Your task to perform on an android device: Show me productivity apps on the Play Store Image 0: 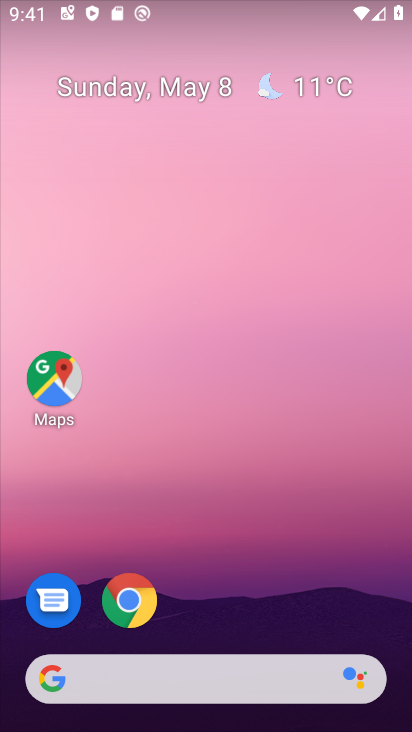
Step 0: drag from (260, 580) to (151, 16)
Your task to perform on an android device: Show me productivity apps on the Play Store Image 1: 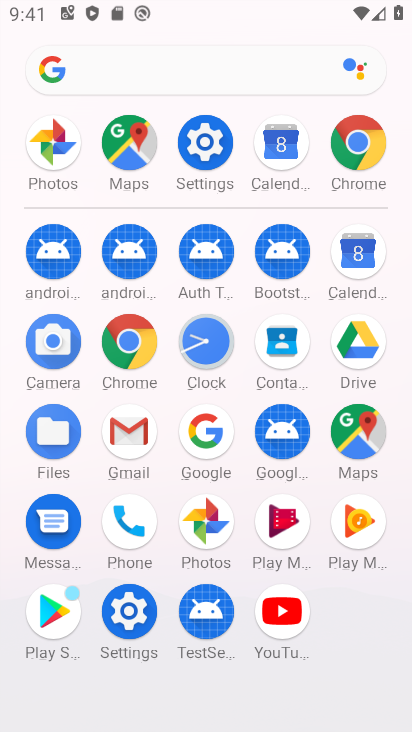
Step 1: click (52, 610)
Your task to perform on an android device: Show me productivity apps on the Play Store Image 2: 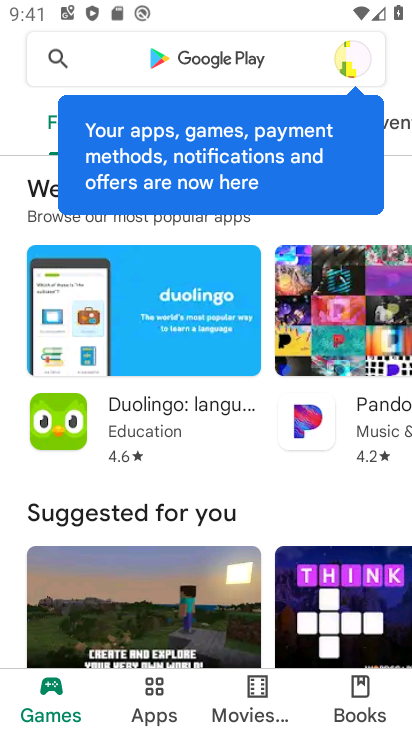
Step 2: click (283, 57)
Your task to perform on an android device: Show me productivity apps on the Play Store Image 3: 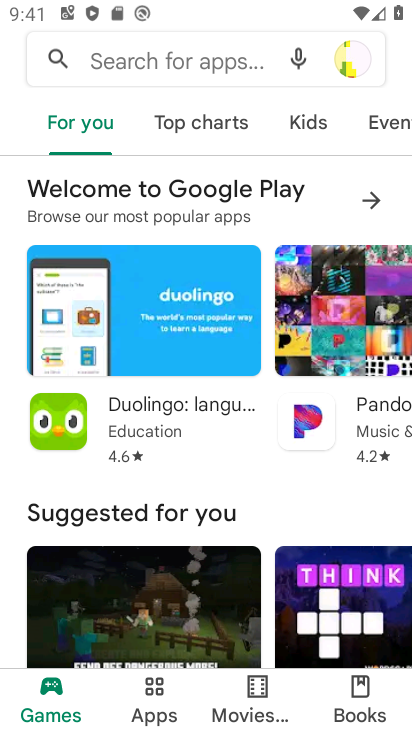
Step 3: click (150, 694)
Your task to perform on an android device: Show me productivity apps on the Play Store Image 4: 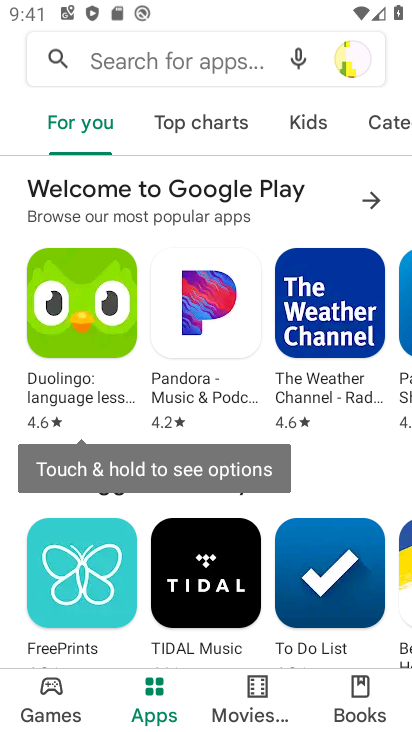
Step 4: click (377, 118)
Your task to perform on an android device: Show me productivity apps on the Play Store Image 5: 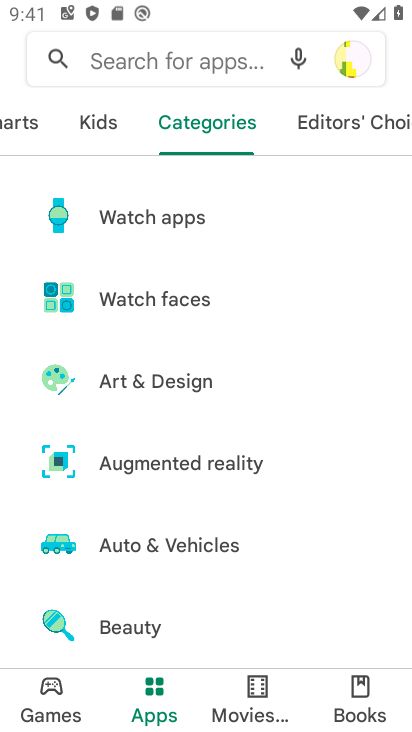
Step 5: drag from (239, 588) to (290, 76)
Your task to perform on an android device: Show me productivity apps on the Play Store Image 6: 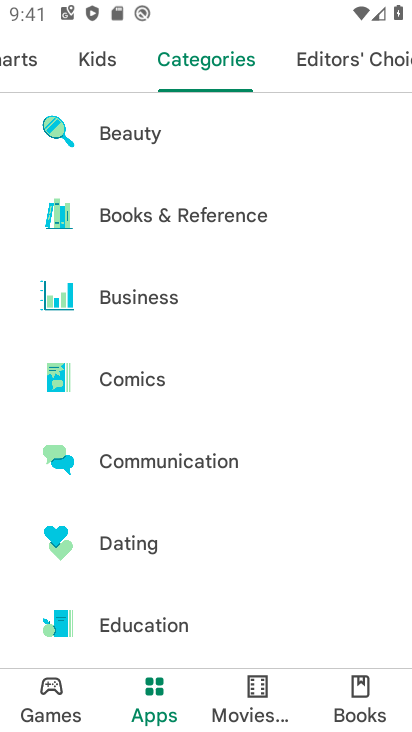
Step 6: drag from (244, 625) to (249, 172)
Your task to perform on an android device: Show me productivity apps on the Play Store Image 7: 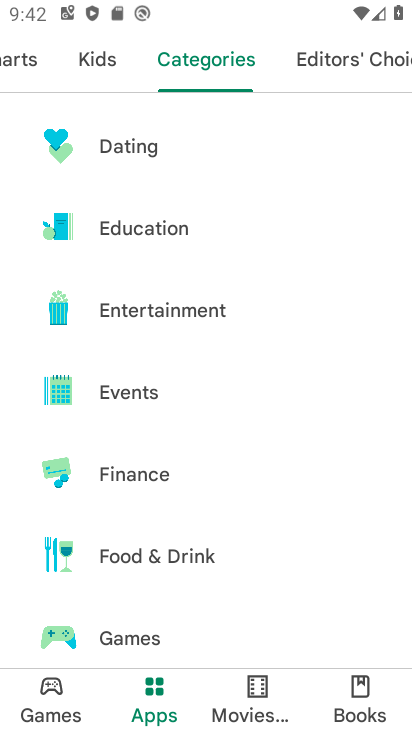
Step 7: drag from (288, 527) to (290, 146)
Your task to perform on an android device: Show me productivity apps on the Play Store Image 8: 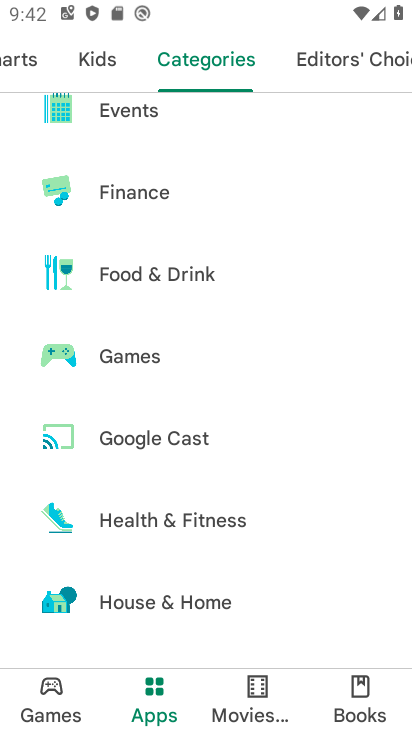
Step 8: drag from (223, 579) to (280, 185)
Your task to perform on an android device: Show me productivity apps on the Play Store Image 9: 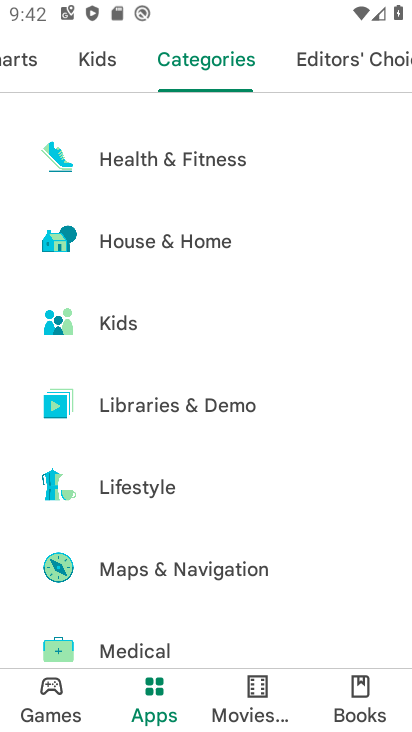
Step 9: drag from (278, 603) to (326, 204)
Your task to perform on an android device: Show me productivity apps on the Play Store Image 10: 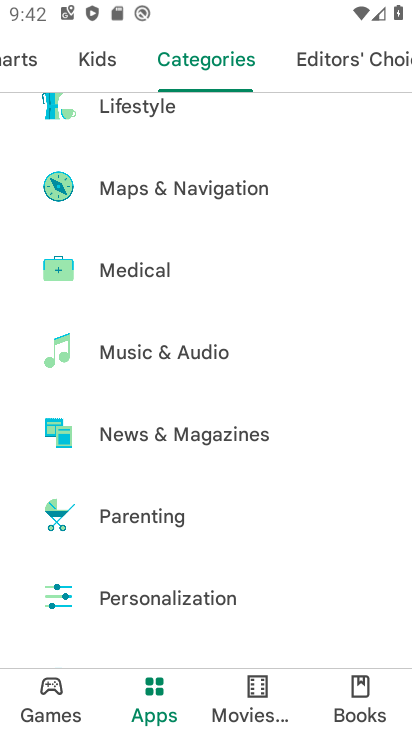
Step 10: drag from (244, 601) to (247, 239)
Your task to perform on an android device: Show me productivity apps on the Play Store Image 11: 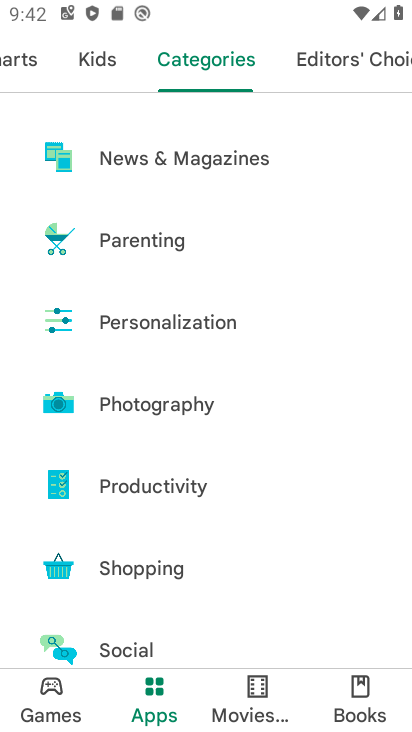
Step 11: click (175, 490)
Your task to perform on an android device: Show me productivity apps on the Play Store Image 12: 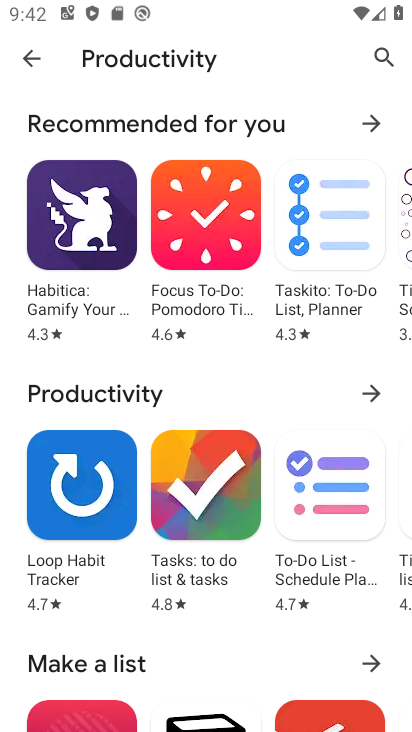
Step 12: task complete